Your task to perform on an android device: turn off smart reply in the gmail app Image 0: 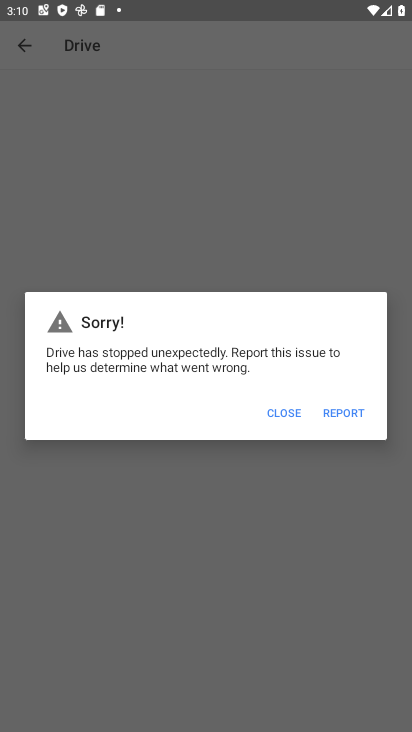
Step 0: press home button
Your task to perform on an android device: turn off smart reply in the gmail app Image 1: 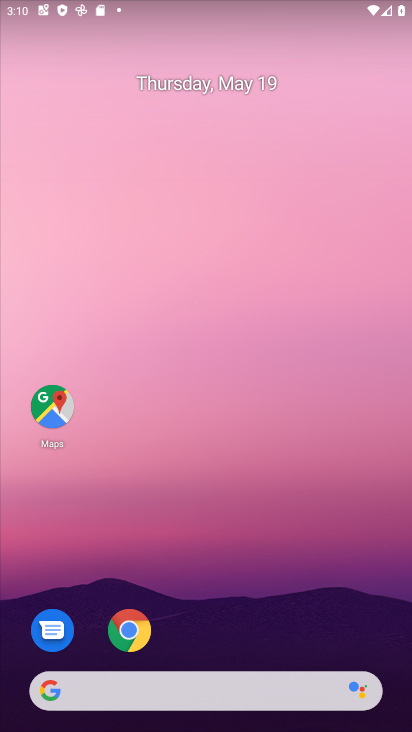
Step 1: drag from (375, 626) to (293, 56)
Your task to perform on an android device: turn off smart reply in the gmail app Image 2: 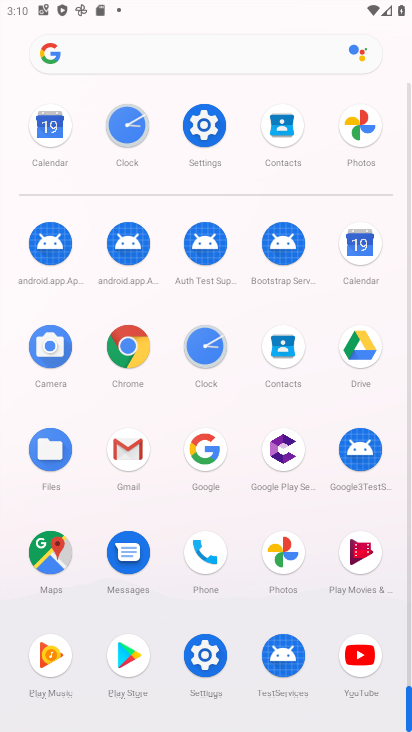
Step 2: click (128, 451)
Your task to perform on an android device: turn off smart reply in the gmail app Image 3: 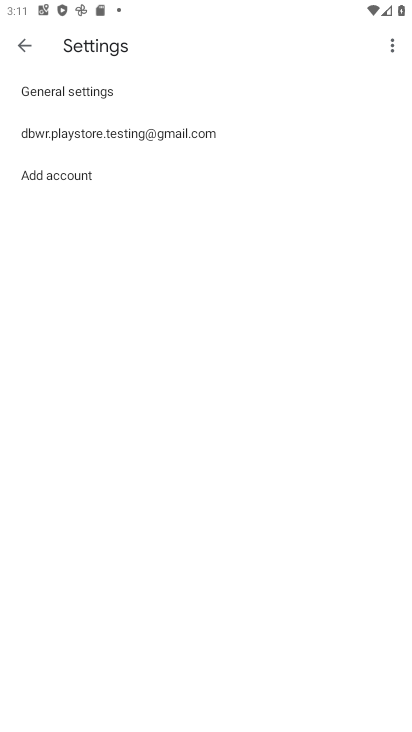
Step 3: click (109, 130)
Your task to perform on an android device: turn off smart reply in the gmail app Image 4: 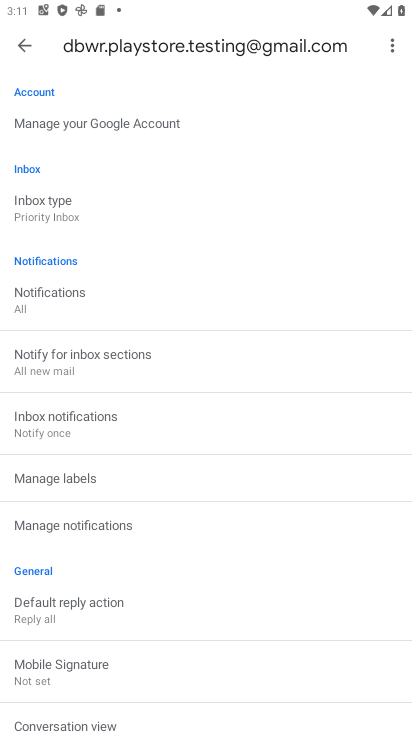
Step 4: drag from (202, 622) to (169, 199)
Your task to perform on an android device: turn off smart reply in the gmail app Image 5: 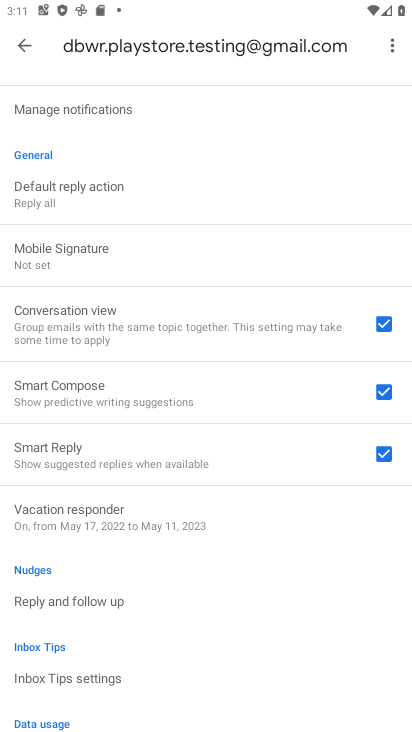
Step 5: click (384, 451)
Your task to perform on an android device: turn off smart reply in the gmail app Image 6: 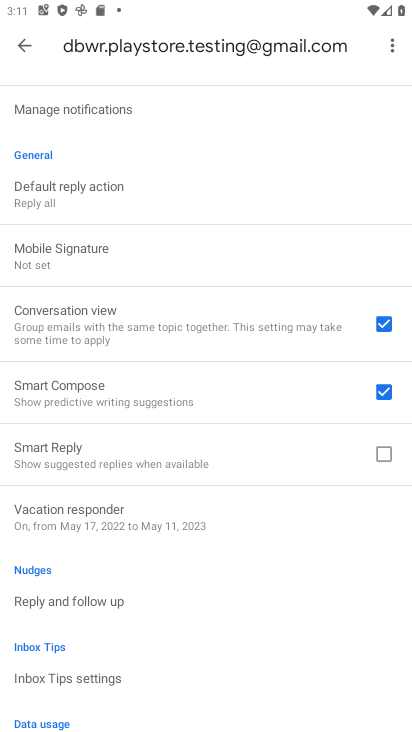
Step 6: task complete